Your task to perform on an android device: Search for Italian restaurants on Maps Image 0: 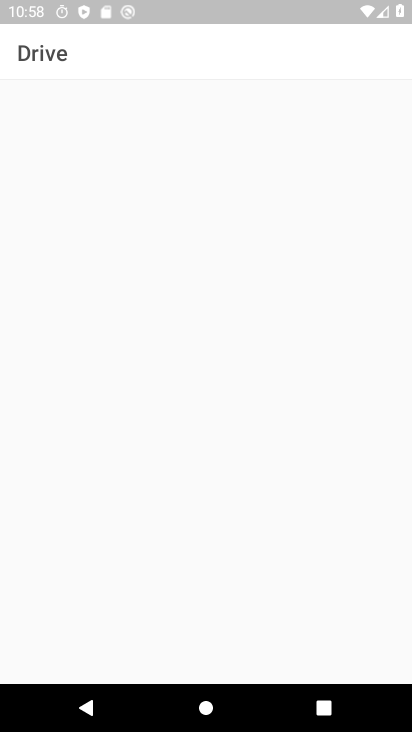
Step 0: press home button
Your task to perform on an android device: Search for Italian restaurants on Maps Image 1: 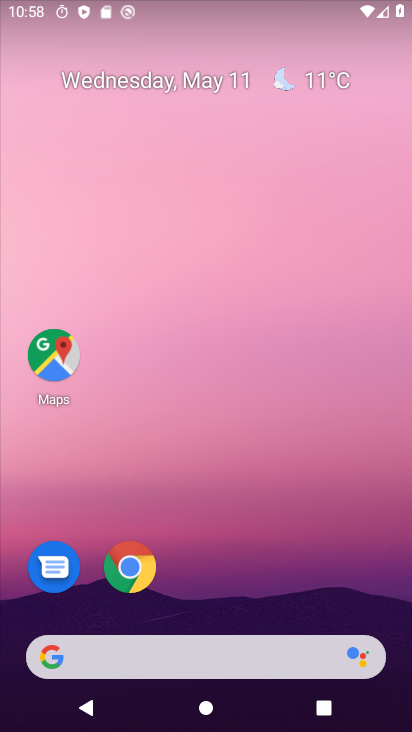
Step 1: click (49, 369)
Your task to perform on an android device: Search for Italian restaurants on Maps Image 2: 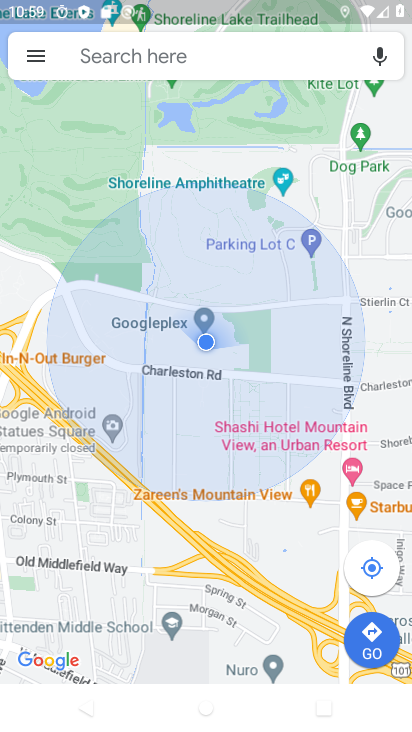
Step 2: click (249, 53)
Your task to perform on an android device: Search for Italian restaurants on Maps Image 3: 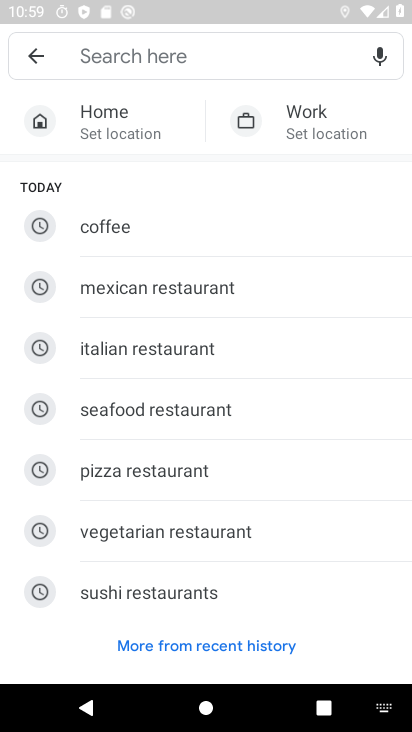
Step 3: click (174, 352)
Your task to perform on an android device: Search for Italian restaurants on Maps Image 4: 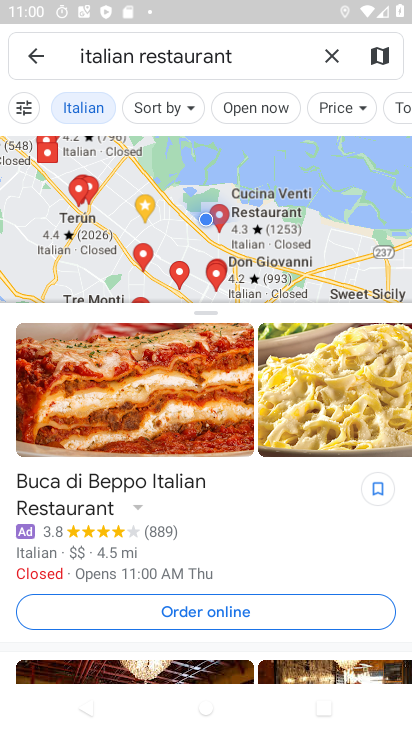
Step 4: task complete